Your task to perform on an android device: Open privacy settings Image 0: 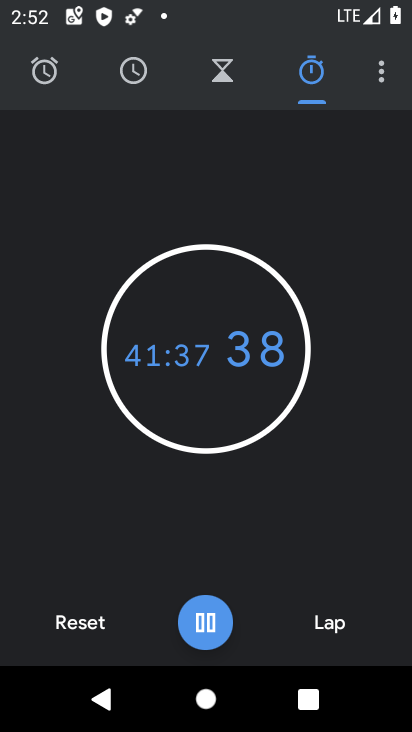
Step 0: press home button
Your task to perform on an android device: Open privacy settings Image 1: 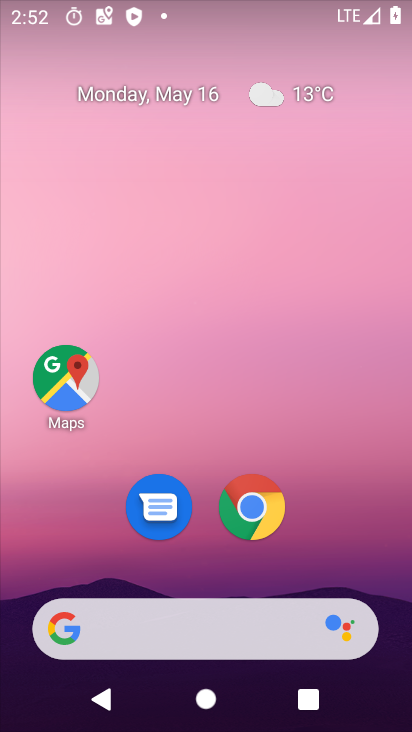
Step 1: drag from (350, 504) to (370, 69)
Your task to perform on an android device: Open privacy settings Image 2: 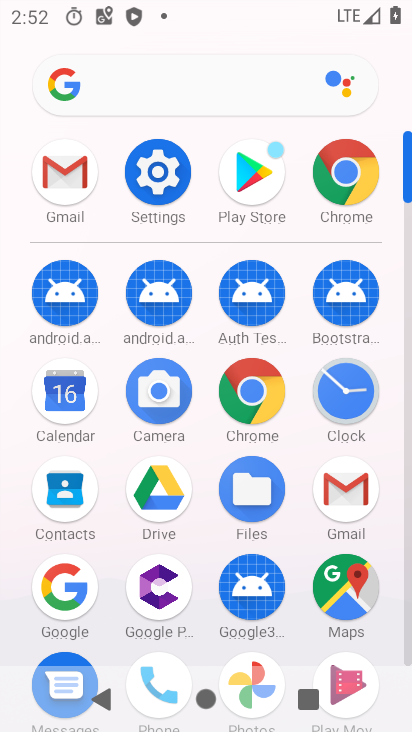
Step 2: click (168, 189)
Your task to perform on an android device: Open privacy settings Image 3: 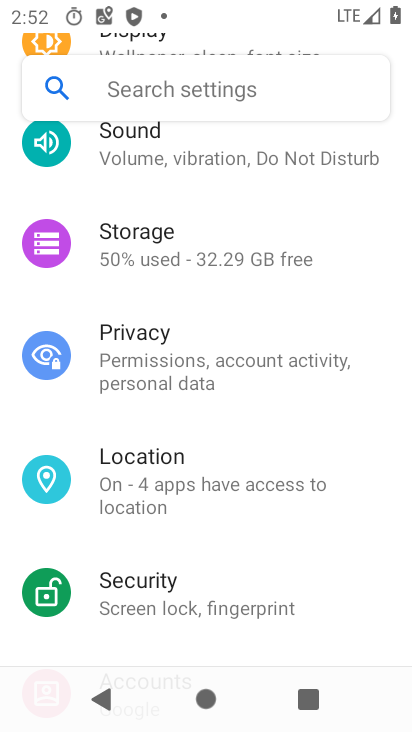
Step 3: drag from (371, 242) to (388, 412)
Your task to perform on an android device: Open privacy settings Image 4: 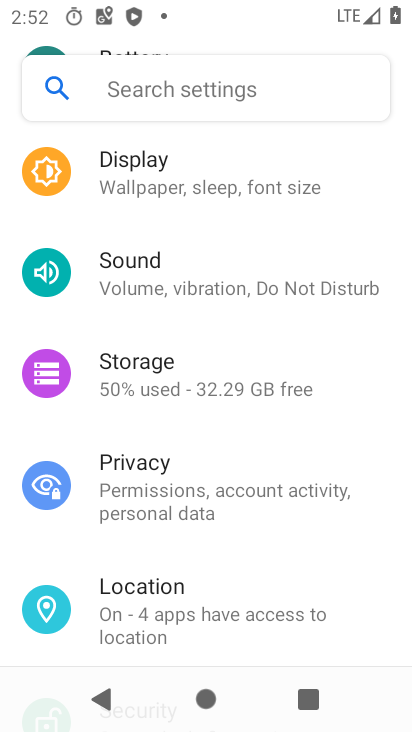
Step 4: drag from (373, 240) to (361, 393)
Your task to perform on an android device: Open privacy settings Image 5: 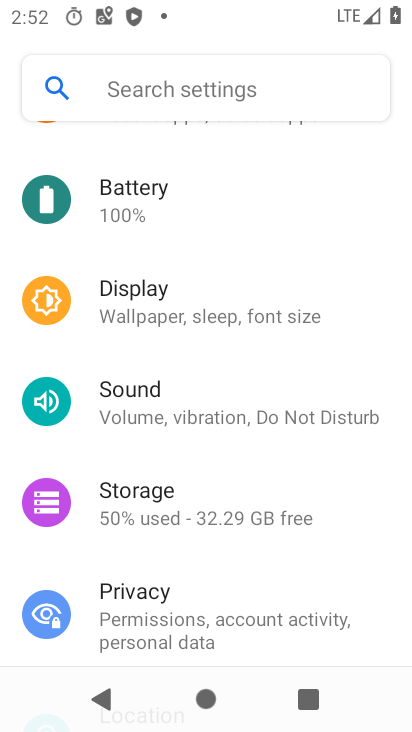
Step 5: drag from (348, 212) to (347, 411)
Your task to perform on an android device: Open privacy settings Image 6: 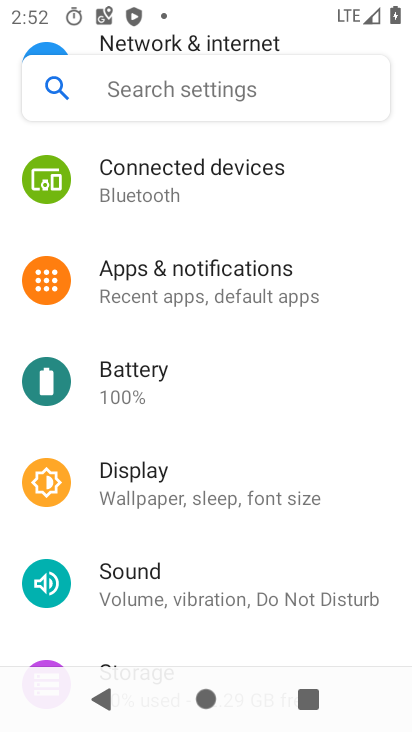
Step 6: drag from (366, 185) to (372, 336)
Your task to perform on an android device: Open privacy settings Image 7: 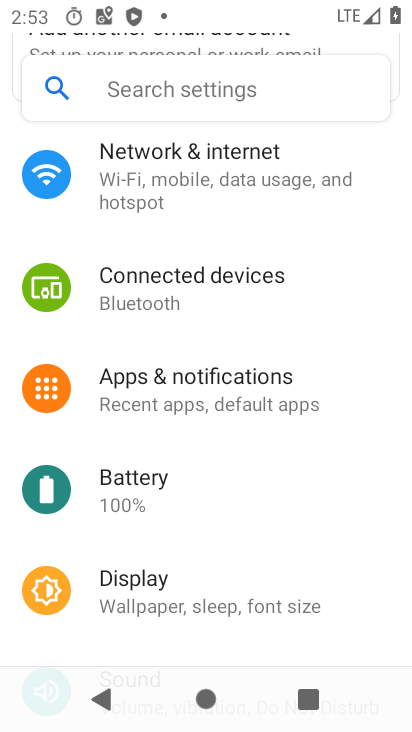
Step 7: drag from (366, 238) to (365, 397)
Your task to perform on an android device: Open privacy settings Image 8: 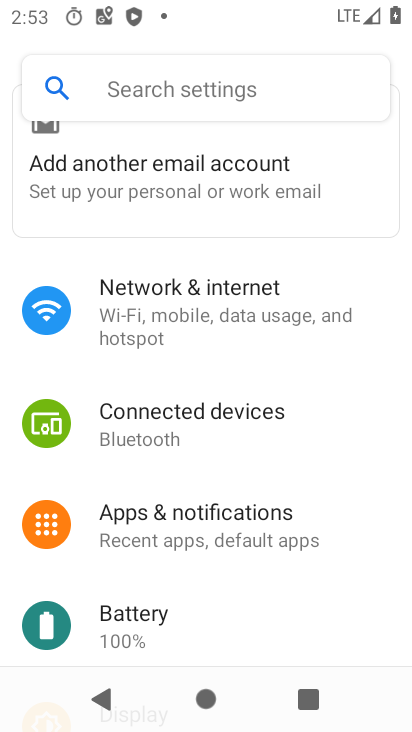
Step 8: drag from (372, 251) to (348, 459)
Your task to perform on an android device: Open privacy settings Image 9: 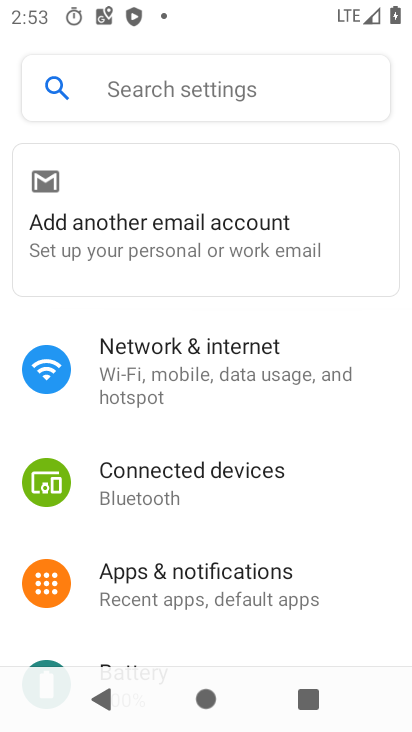
Step 9: drag from (335, 514) to (351, 338)
Your task to perform on an android device: Open privacy settings Image 10: 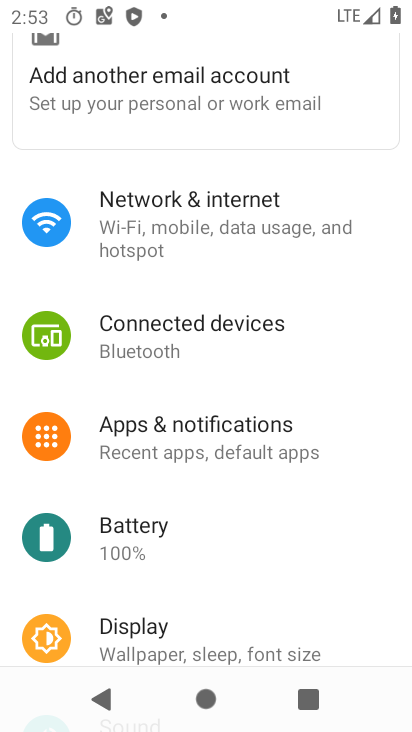
Step 10: drag from (352, 538) to (360, 404)
Your task to perform on an android device: Open privacy settings Image 11: 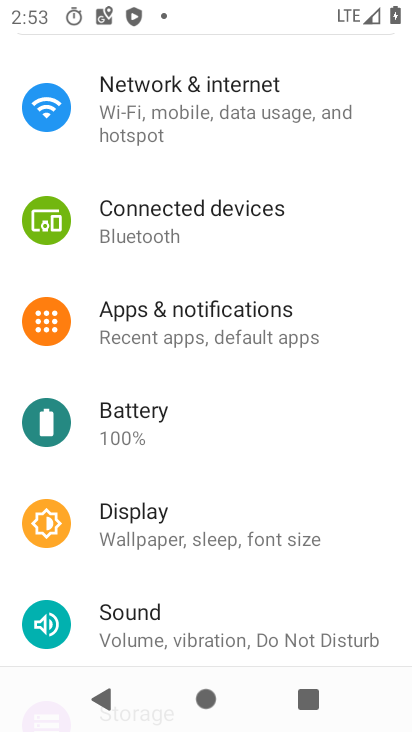
Step 11: drag from (353, 581) to (375, 402)
Your task to perform on an android device: Open privacy settings Image 12: 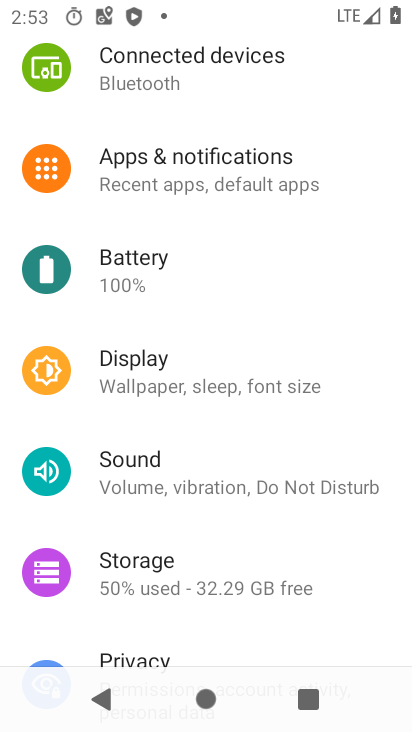
Step 12: drag from (349, 623) to (345, 413)
Your task to perform on an android device: Open privacy settings Image 13: 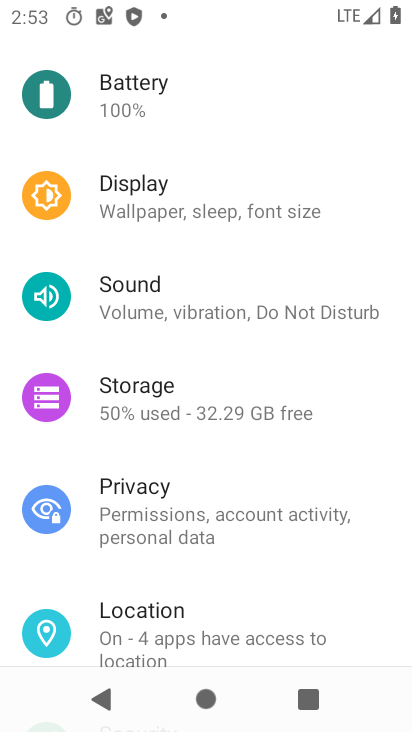
Step 13: drag from (364, 602) to (364, 399)
Your task to perform on an android device: Open privacy settings Image 14: 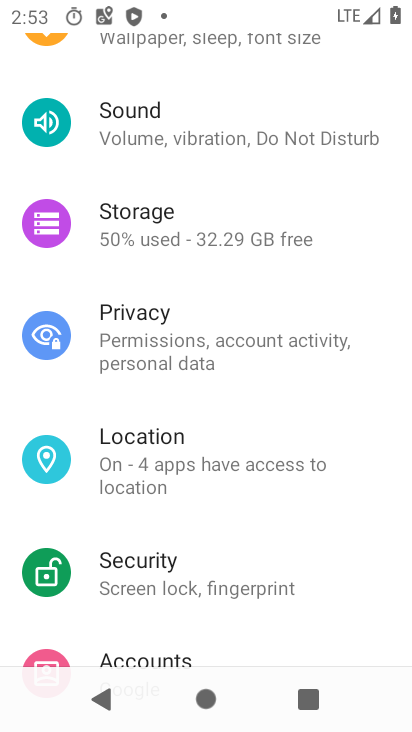
Step 14: click (246, 339)
Your task to perform on an android device: Open privacy settings Image 15: 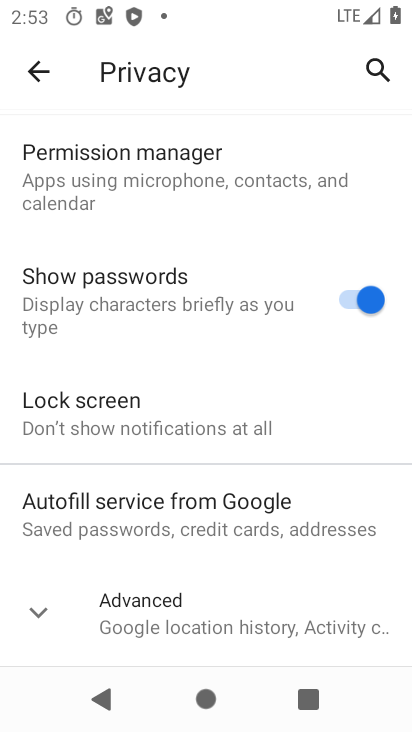
Step 15: click (186, 617)
Your task to perform on an android device: Open privacy settings Image 16: 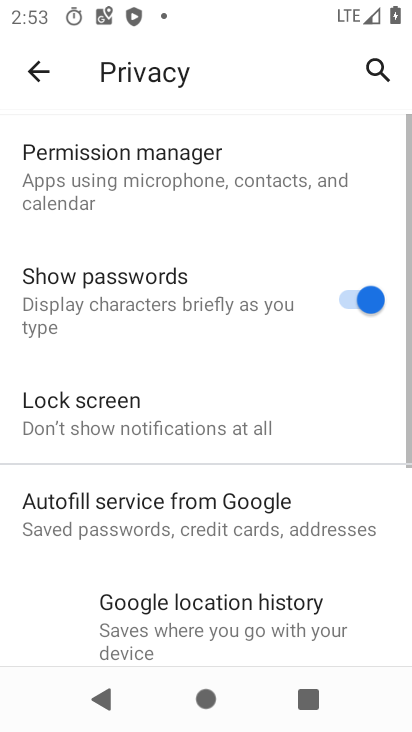
Step 16: task complete